Your task to perform on an android device: Show me popular videos on Youtube Image 0: 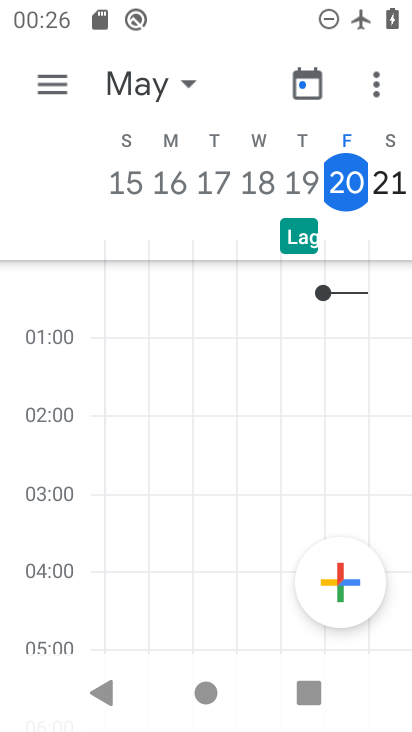
Step 0: press home button
Your task to perform on an android device: Show me popular videos on Youtube Image 1: 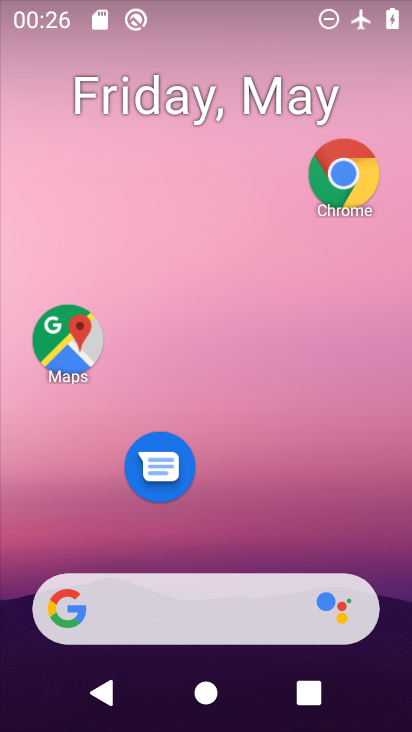
Step 1: drag from (268, 512) to (274, 269)
Your task to perform on an android device: Show me popular videos on Youtube Image 2: 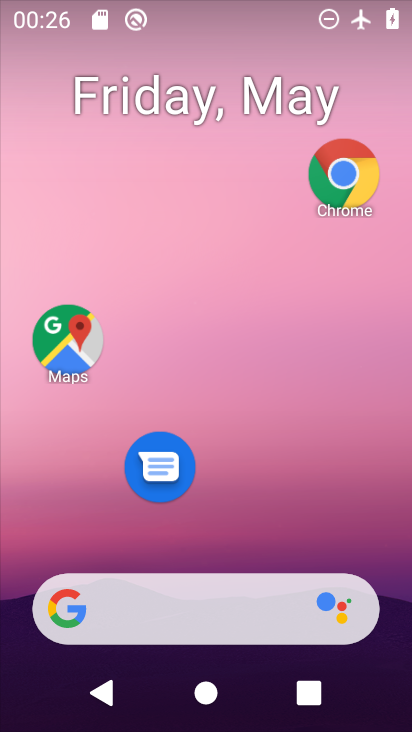
Step 2: drag from (207, 648) to (236, 381)
Your task to perform on an android device: Show me popular videos on Youtube Image 3: 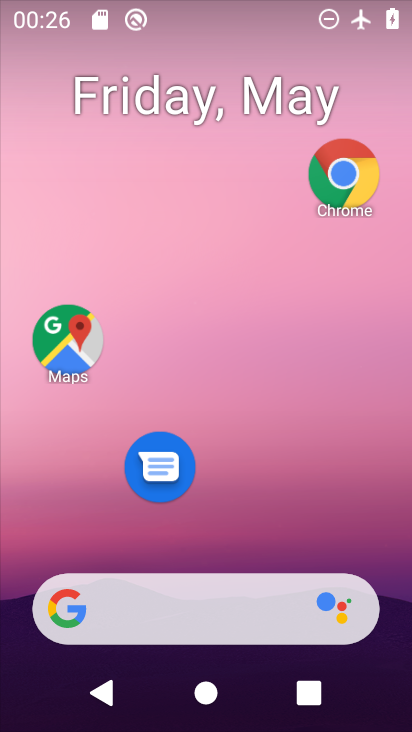
Step 3: drag from (245, 554) to (237, 193)
Your task to perform on an android device: Show me popular videos on Youtube Image 4: 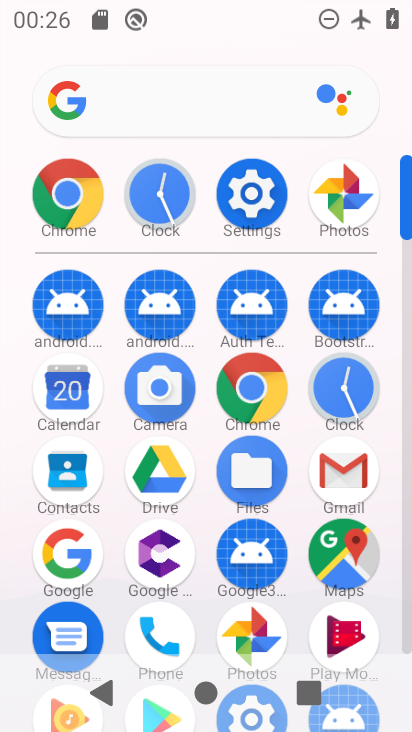
Step 4: drag from (299, 552) to (311, 313)
Your task to perform on an android device: Show me popular videos on Youtube Image 5: 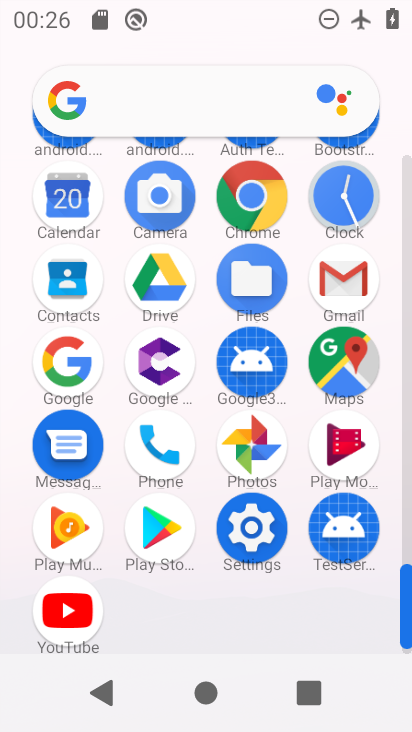
Step 5: click (57, 597)
Your task to perform on an android device: Show me popular videos on Youtube Image 6: 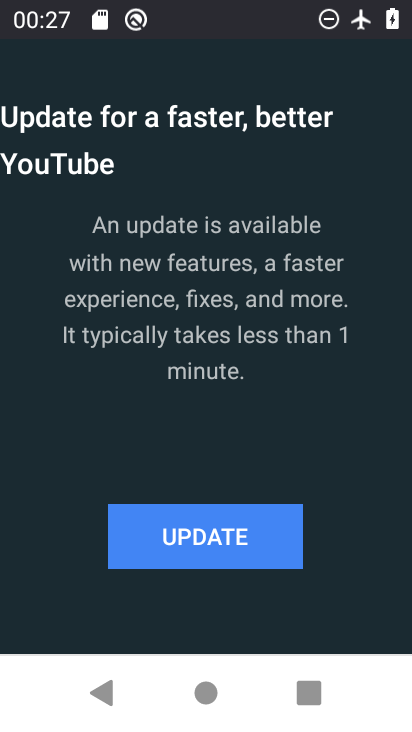
Step 6: task complete